Your task to perform on an android device: Search for "jbl charge 4" on target.com, select the first entry, and add it to the cart. Image 0: 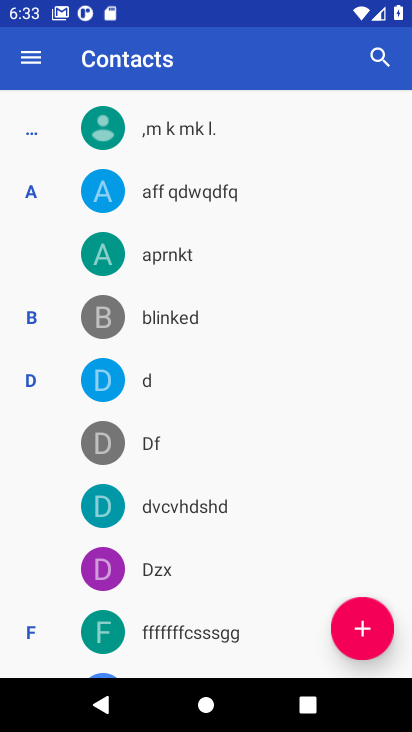
Step 0: press home button
Your task to perform on an android device: Search for "jbl charge 4" on target.com, select the first entry, and add it to the cart. Image 1: 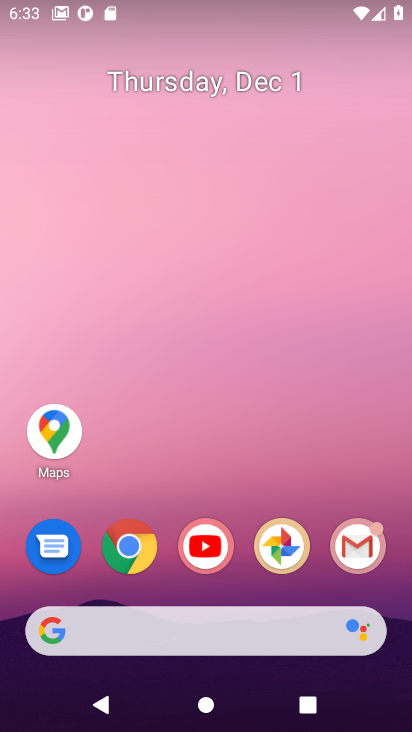
Step 1: click (136, 545)
Your task to perform on an android device: Search for "jbl charge 4" on target.com, select the first entry, and add it to the cart. Image 2: 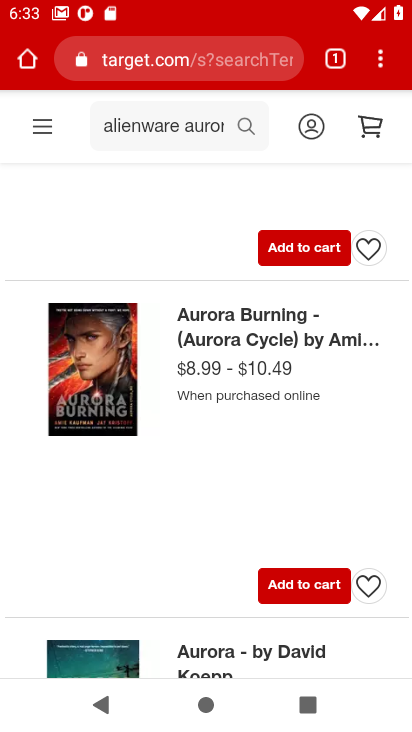
Step 2: click (174, 126)
Your task to perform on an android device: Search for "jbl charge 4" on target.com, select the first entry, and add it to the cart. Image 3: 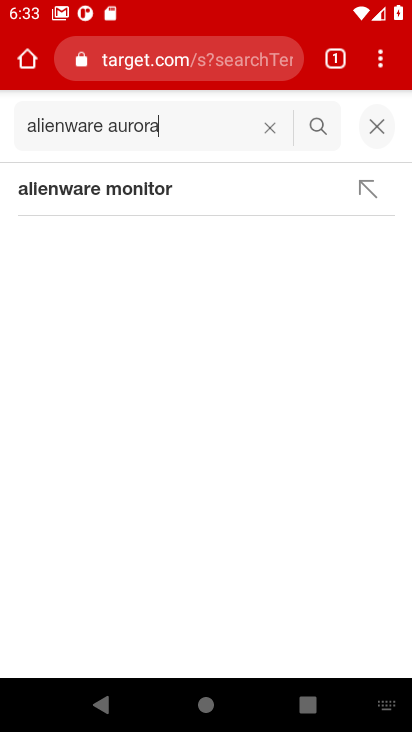
Step 3: click (266, 126)
Your task to perform on an android device: Search for "jbl charge 4" on target.com, select the first entry, and add it to the cart. Image 4: 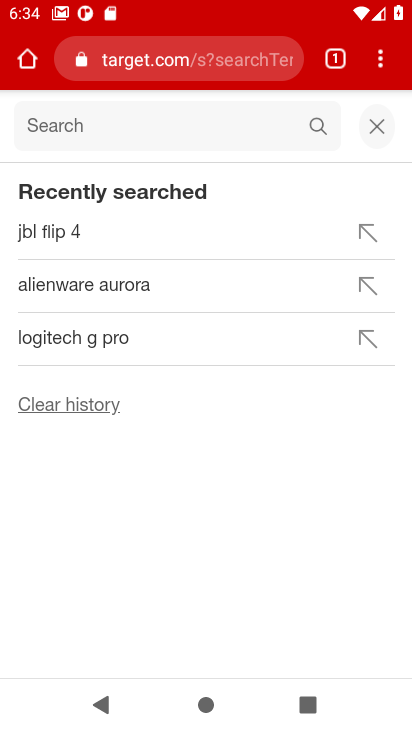
Step 4: click (44, 134)
Your task to perform on an android device: Search for "jbl charge 4" on target.com, select the first entry, and add it to the cart. Image 5: 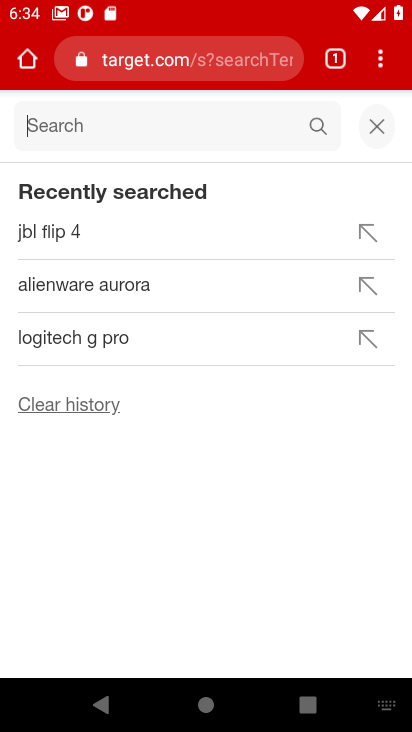
Step 5: type "jbl charge 4"
Your task to perform on an android device: Search for "jbl charge 4" on target.com, select the first entry, and add it to the cart. Image 6: 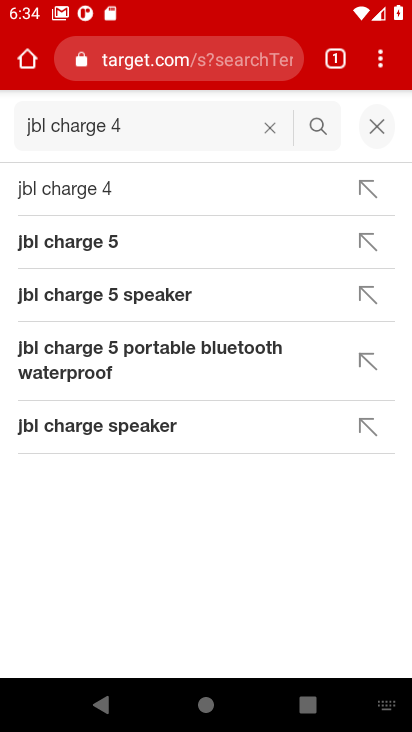
Step 6: click (73, 196)
Your task to perform on an android device: Search for "jbl charge 4" on target.com, select the first entry, and add it to the cart. Image 7: 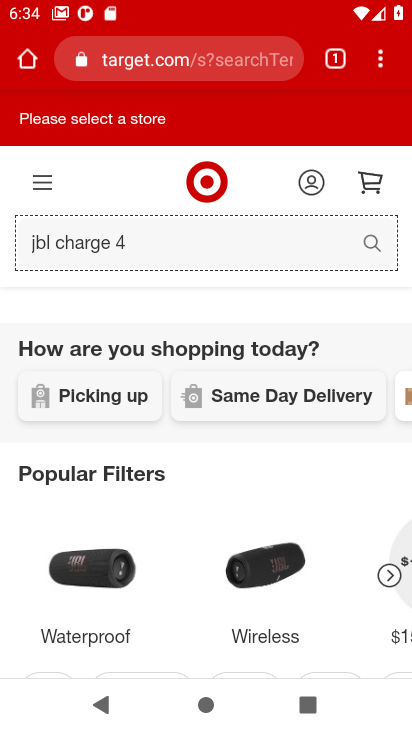
Step 7: task complete